Your task to perform on an android device: Search for pizza restaurants on Maps Image 0: 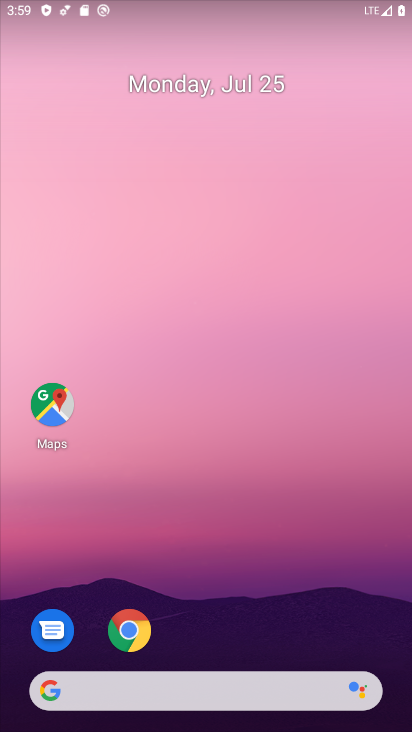
Step 0: drag from (254, 636) to (232, 161)
Your task to perform on an android device: Search for pizza restaurants on Maps Image 1: 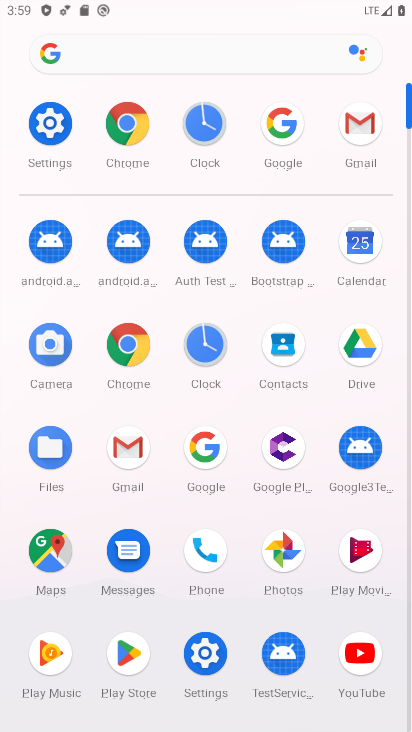
Step 1: click (40, 545)
Your task to perform on an android device: Search for pizza restaurants on Maps Image 2: 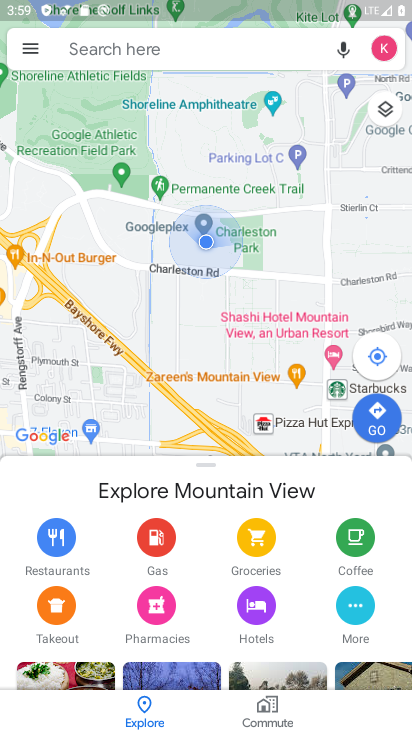
Step 2: click (179, 46)
Your task to perform on an android device: Search for pizza restaurants on Maps Image 3: 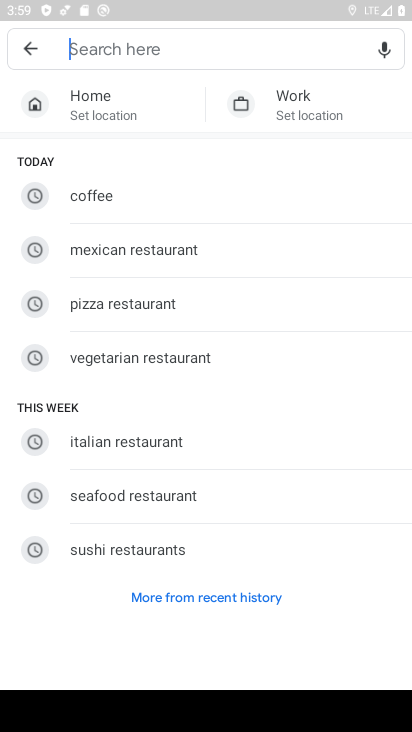
Step 3: click (152, 307)
Your task to perform on an android device: Search for pizza restaurants on Maps Image 4: 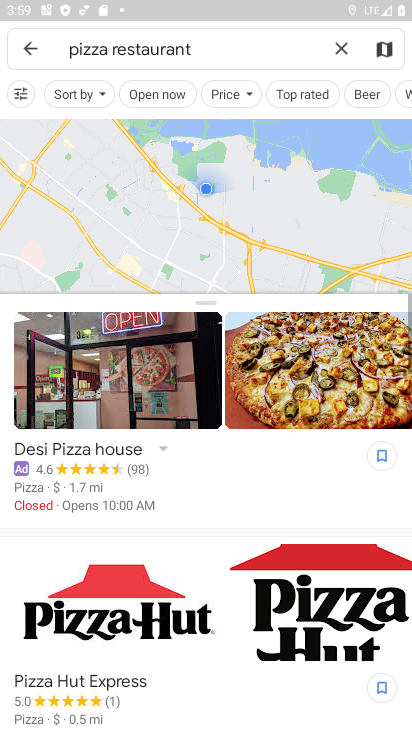
Step 4: task complete